Your task to perform on an android device: Do I have any events tomorrow? Image 0: 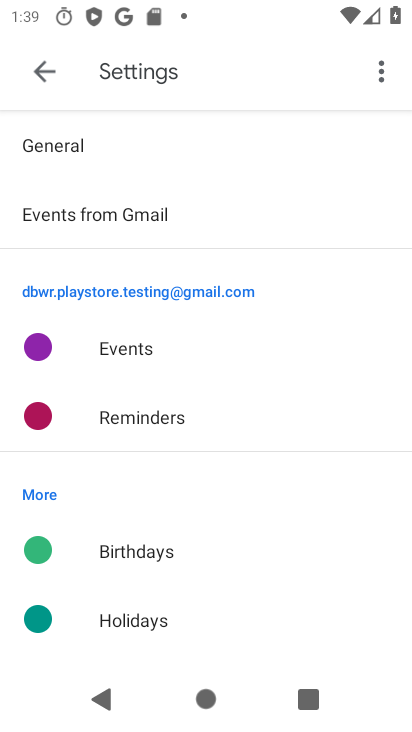
Step 0: press home button
Your task to perform on an android device: Do I have any events tomorrow? Image 1: 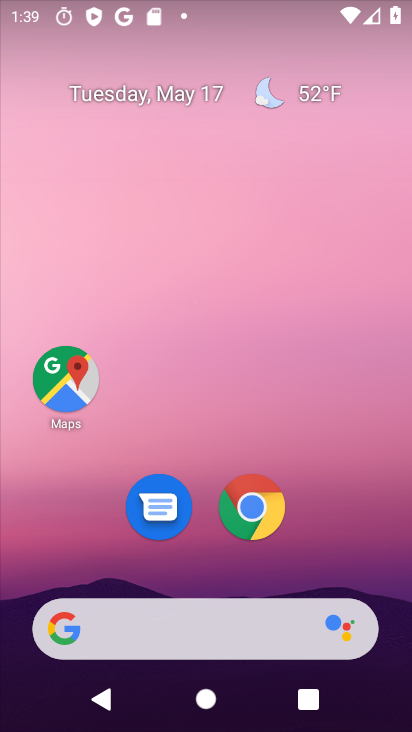
Step 1: drag from (199, 555) to (246, 89)
Your task to perform on an android device: Do I have any events tomorrow? Image 2: 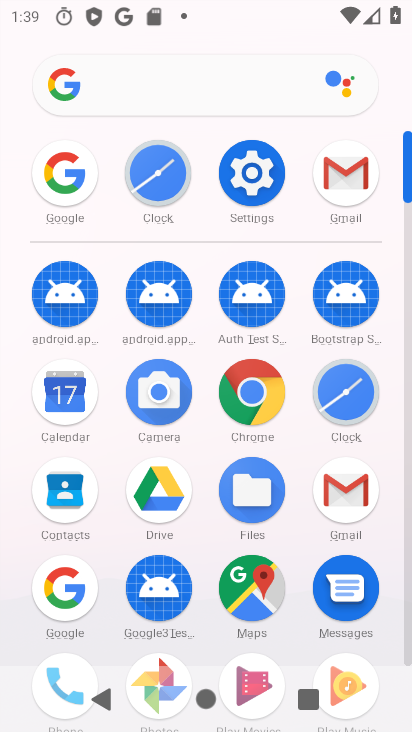
Step 2: click (63, 391)
Your task to perform on an android device: Do I have any events tomorrow? Image 3: 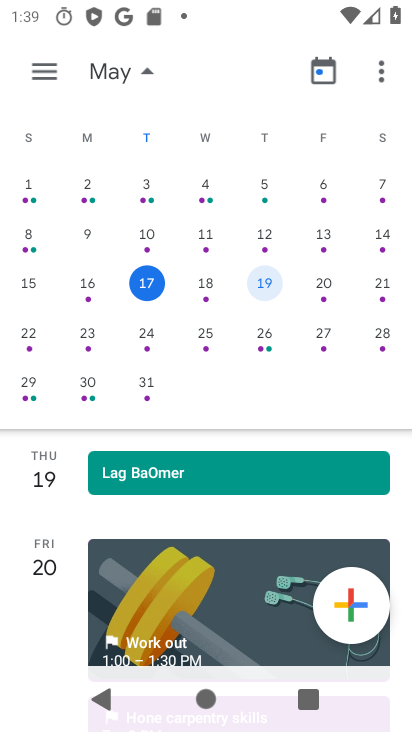
Step 3: click (201, 283)
Your task to perform on an android device: Do I have any events tomorrow? Image 4: 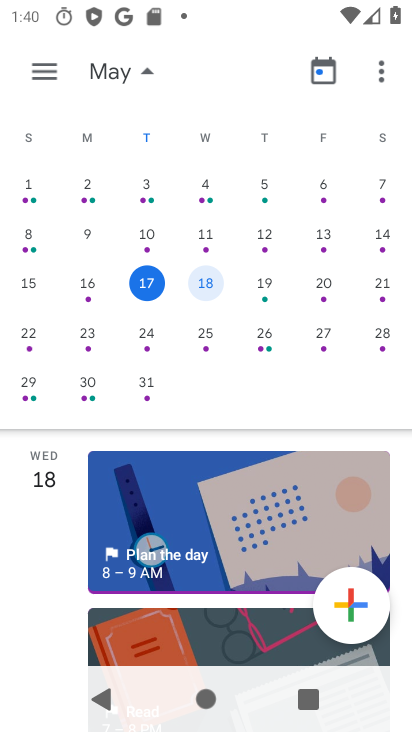
Step 4: task complete